Your task to perform on an android device: Open settings Image 0: 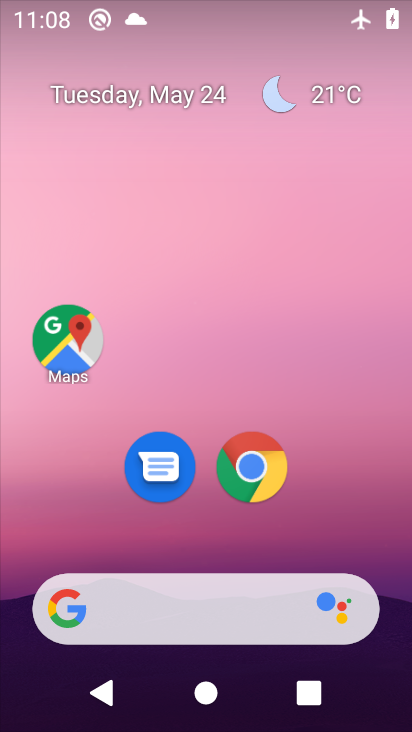
Step 0: drag from (211, 546) to (325, 0)
Your task to perform on an android device: Open settings Image 1: 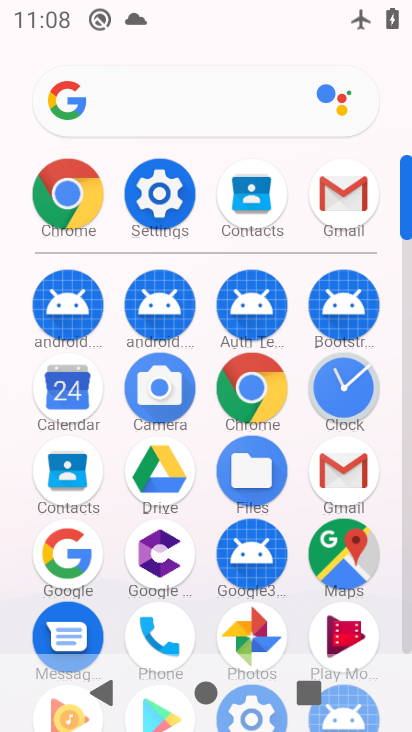
Step 1: click (151, 188)
Your task to perform on an android device: Open settings Image 2: 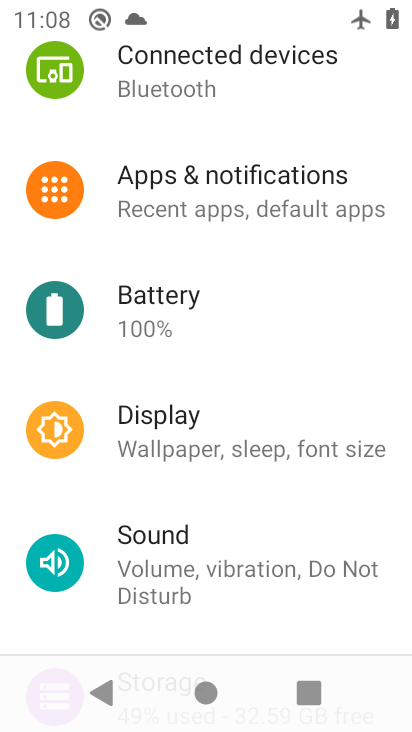
Step 2: task complete